Your task to perform on an android device: star an email in the gmail app Image 0: 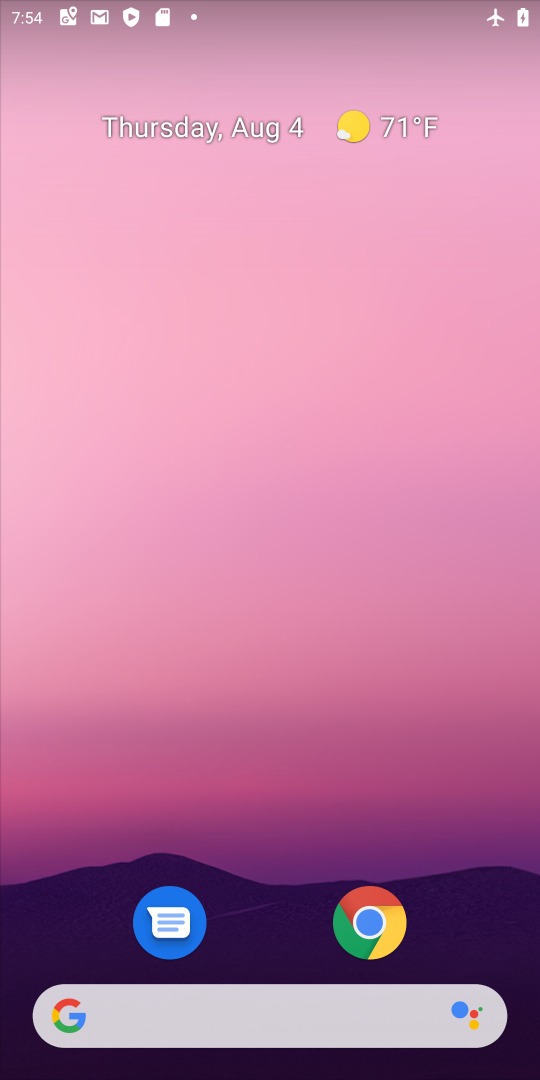
Step 0: drag from (489, 874) to (385, 121)
Your task to perform on an android device: star an email in the gmail app Image 1: 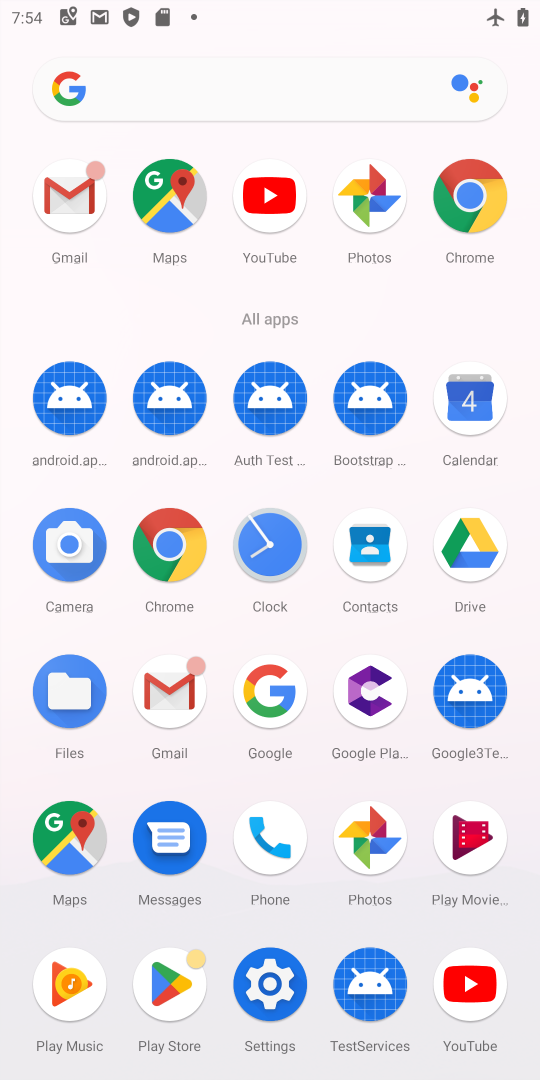
Step 1: click (176, 692)
Your task to perform on an android device: star an email in the gmail app Image 2: 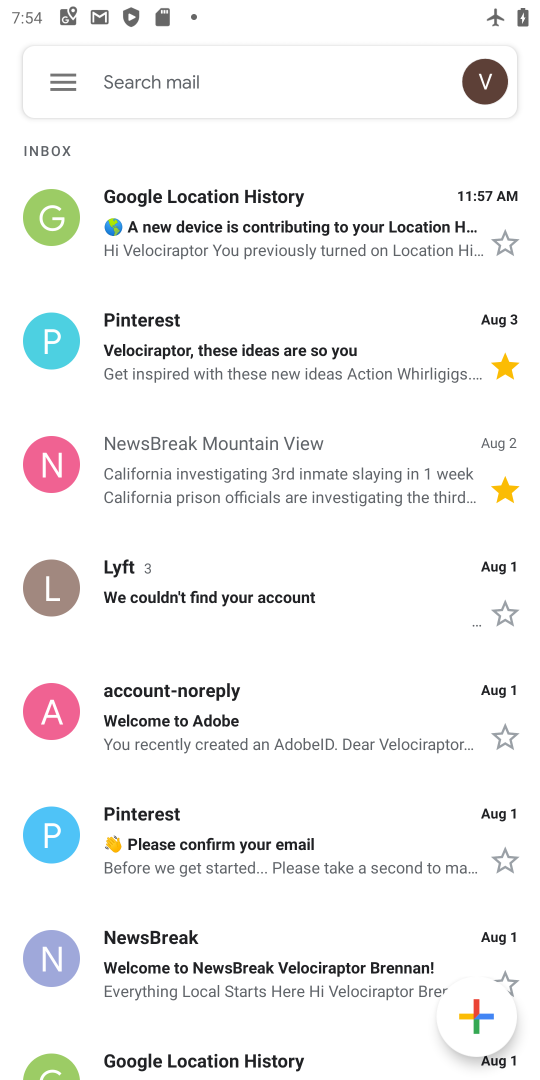
Step 2: click (510, 612)
Your task to perform on an android device: star an email in the gmail app Image 3: 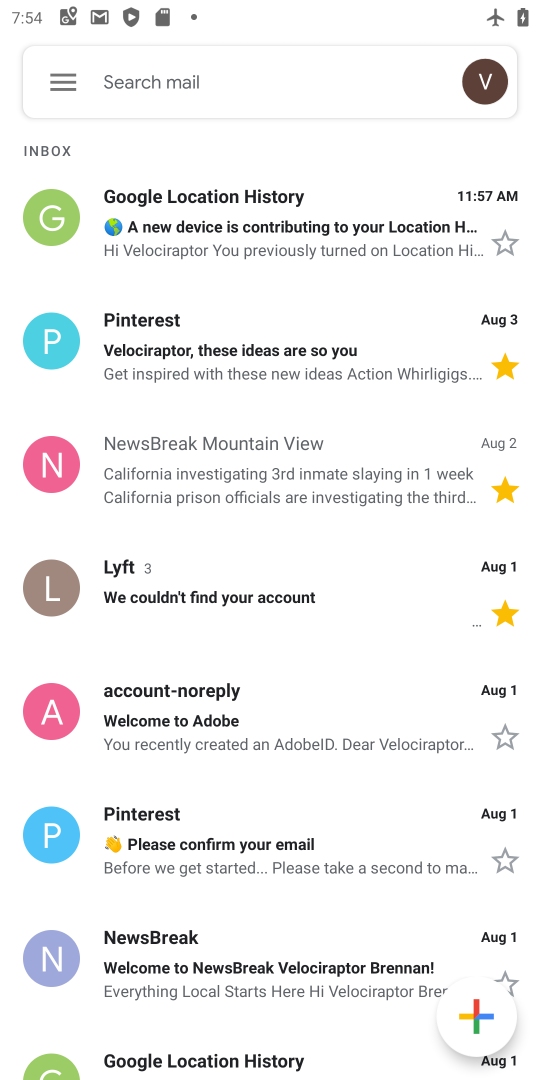
Step 3: task complete